Your task to perform on an android device: Go to Yahoo.com Image 0: 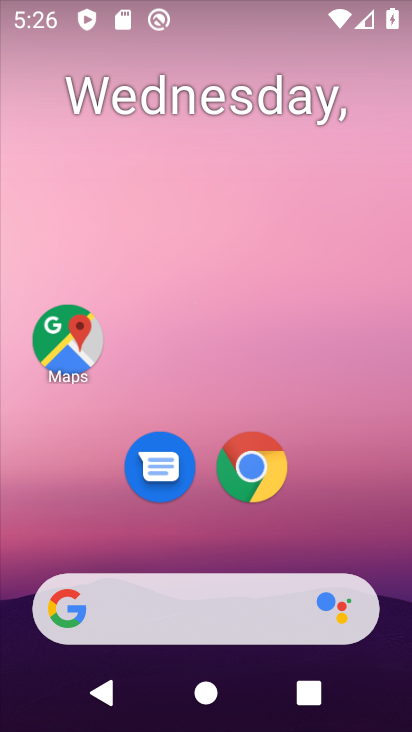
Step 0: click (255, 461)
Your task to perform on an android device: Go to Yahoo.com Image 1: 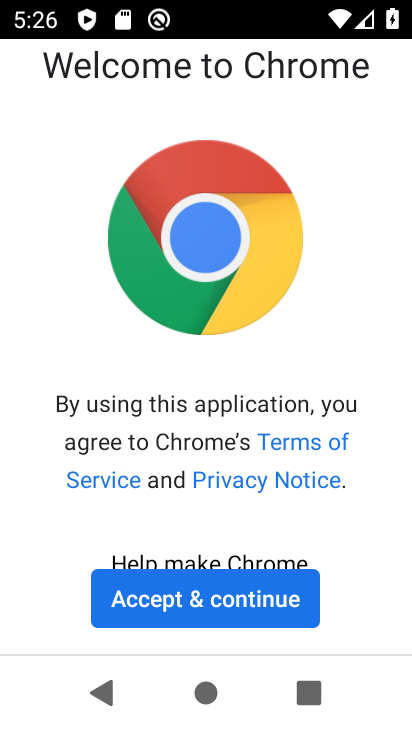
Step 1: click (230, 605)
Your task to perform on an android device: Go to Yahoo.com Image 2: 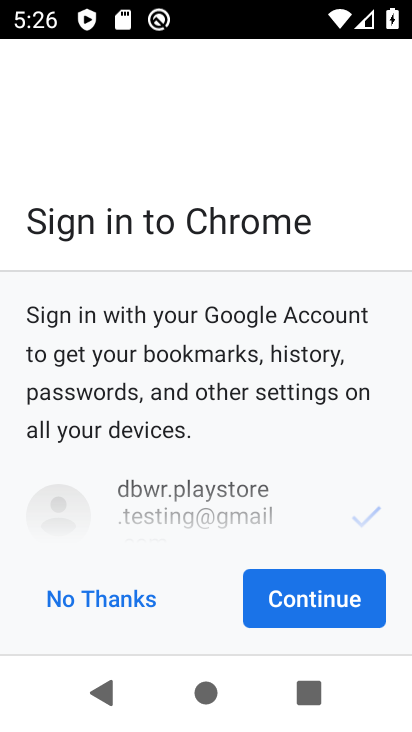
Step 2: click (289, 586)
Your task to perform on an android device: Go to Yahoo.com Image 3: 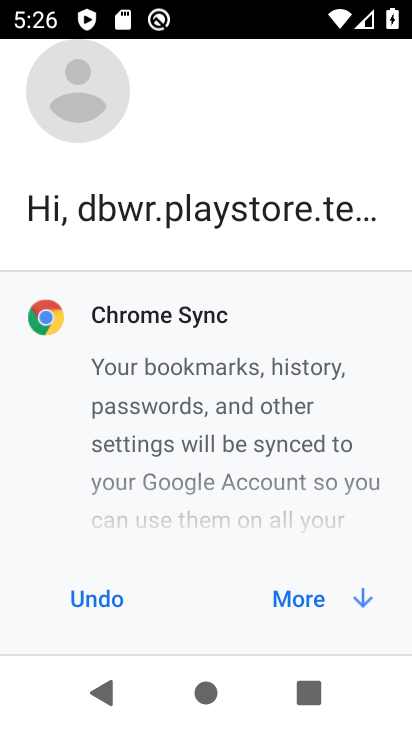
Step 3: click (312, 593)
Your task to perform on an android device: Go to Yahoo.com Image 4: 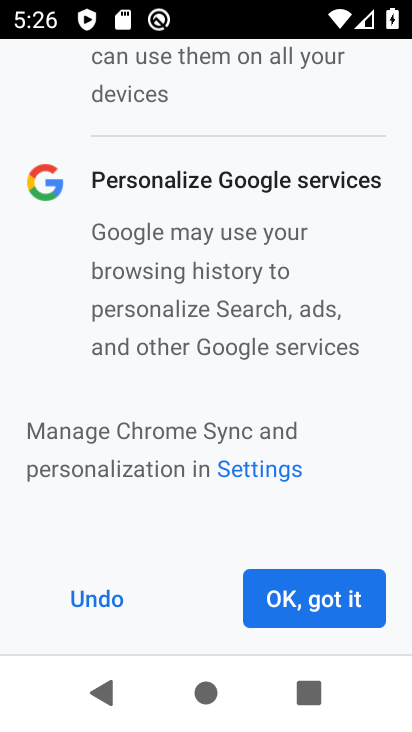
Step 4: click (312, 593)
Your task to perform on an android device: Go to Yahoo.com Image 5: 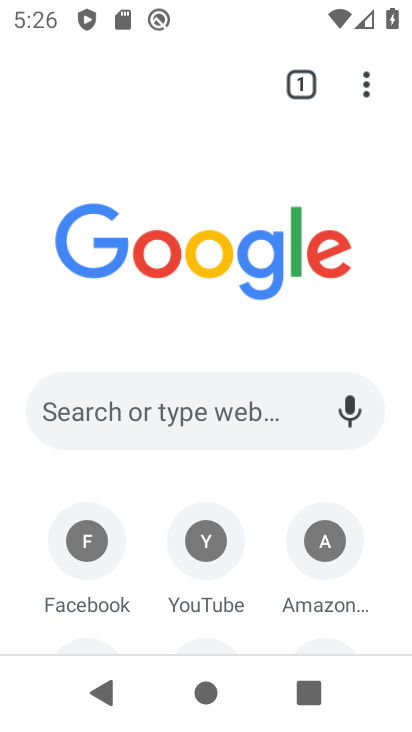
Step 5: click (169, 417)
Your task to perform on an android device: Go to Yahoo.com Image 6: 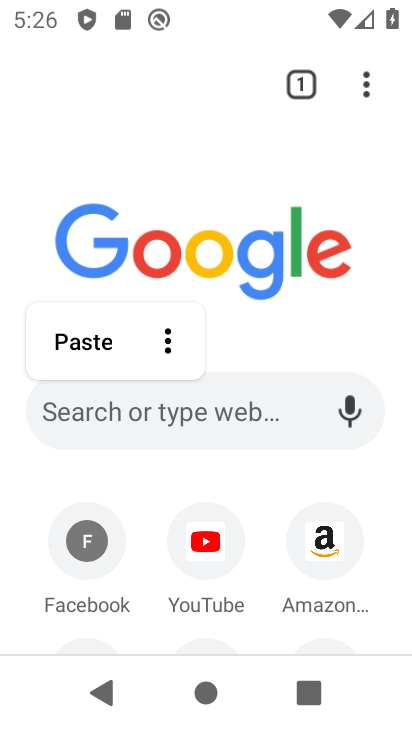
Step 6: click (252, 410)
Your task to perform on an android device: Go to Yahoo.com Image 7: 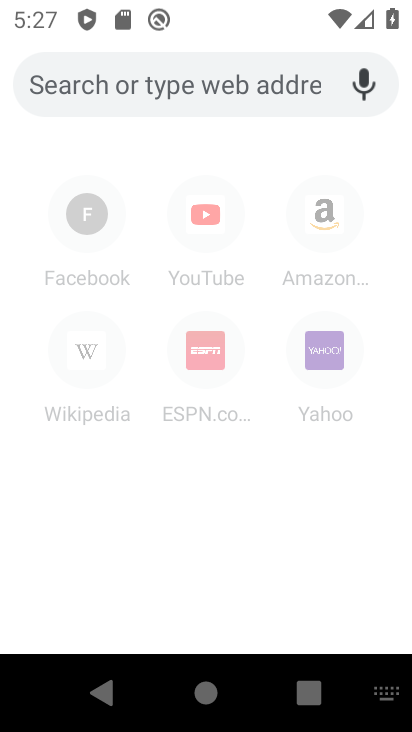
Step 7: type " Yahoo.com"
Your task to perform on an android device: Go to Yahoo.com Image 8: 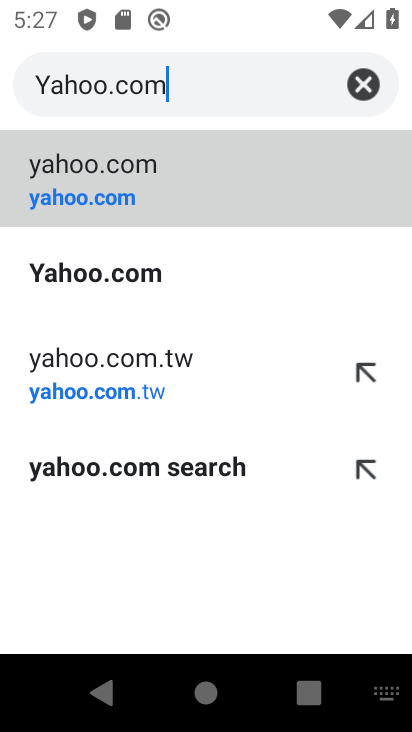
Step 8: click (79, 194)
Your task to perform on an android device: Go to Yahoo.com Image 9: 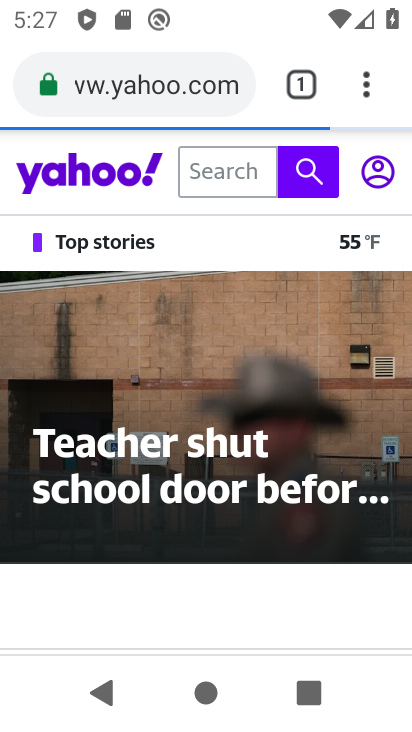
Step 9: task complete